Your task to perform on an android device: Open Google Chrome and click the shortcut for Amazon.com Image 0: 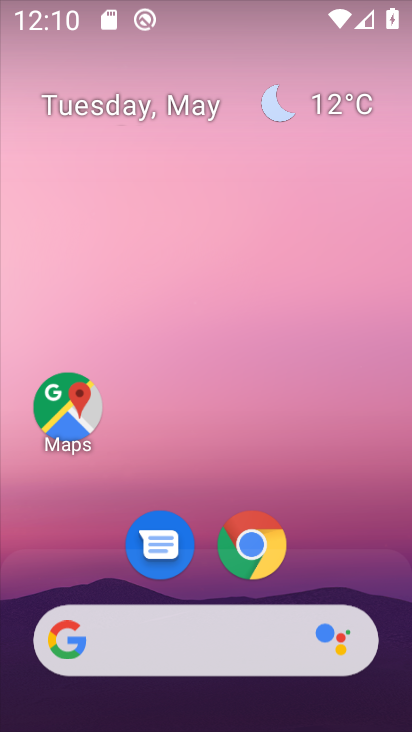
Step 0: click (287, 547)
Your task to perform on an android device: Open Google Chrome and click the shortcut for Amazon.com Image 1: 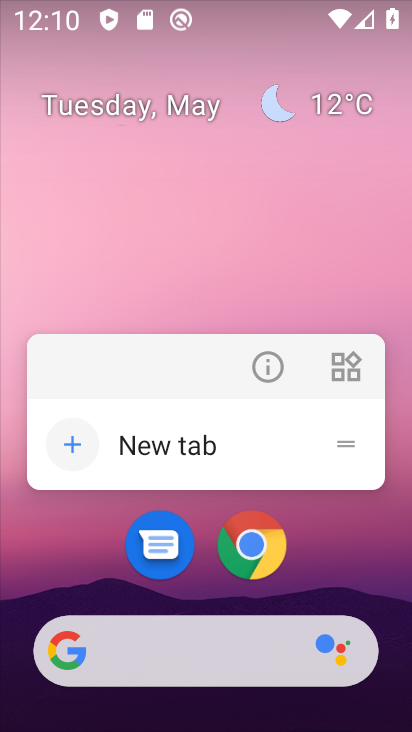
Step 1: click (256, 535)
Your task to perform on an android device: Open Google Chrome and click the shortcut for Amazon.com Image 2: 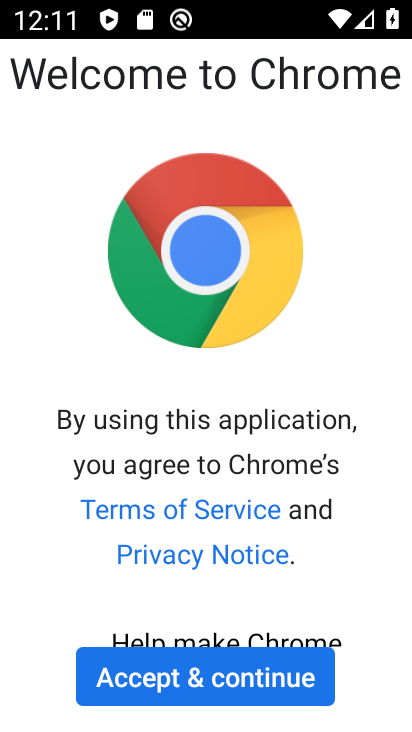
Step 2: click (230, 668)
Your task to perform on an android device: Open Google Chrome and click the shortcut for Amazon.com Image 3: 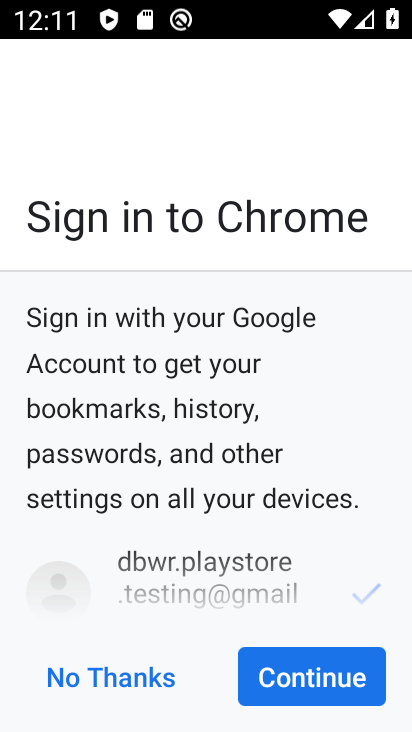
Step 3: click (297, 663)
Your task to perform on an android device: Open Google Chrome and click the shortcut for Amazon.com Image 4: 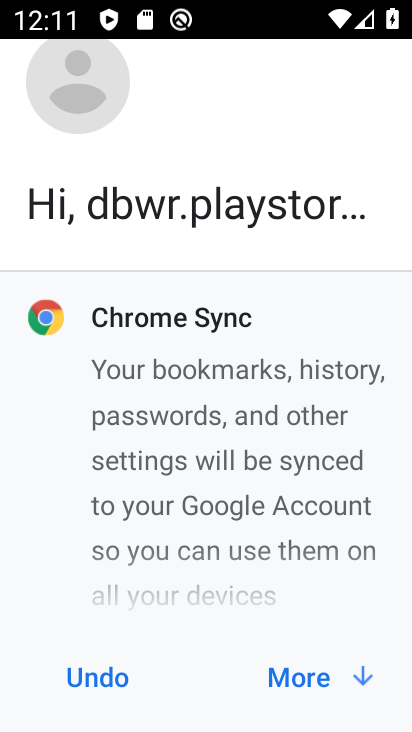
Step 4: click (297, 661)
Your task to perform on an android device: Open Google Chrome and click the shortcut for Amazon.com Image 5: 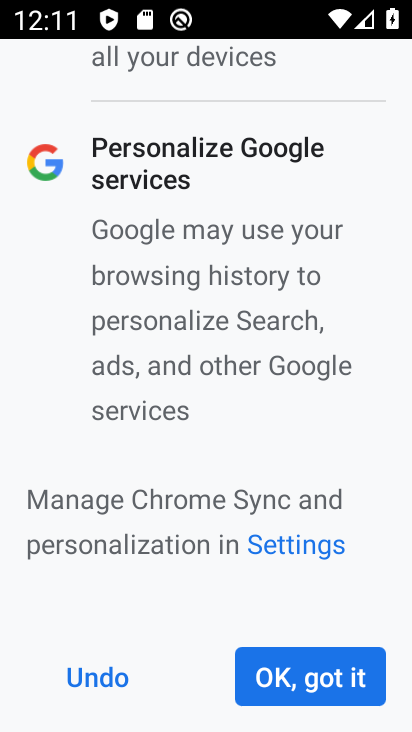
Step 5: click (295, 672)
Your task to perform on an android device: Open Google Chrome and click the shortcut for Amazon.com Image 6: 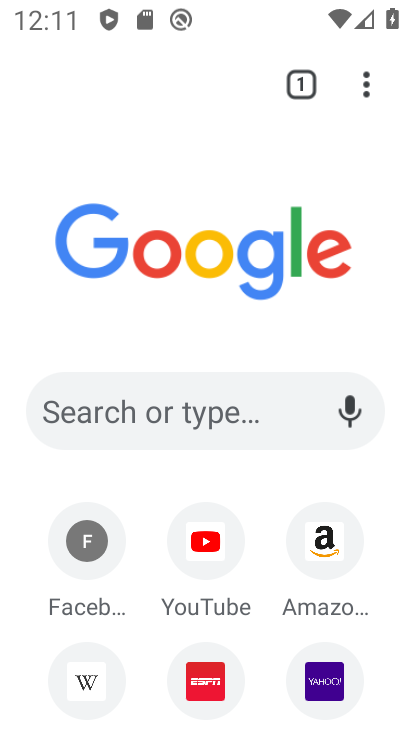
Step 6: click (309, 538)
Your task to perform on an android device: Open Google Chrome and click the shortcut for Amazon.com Image 7: 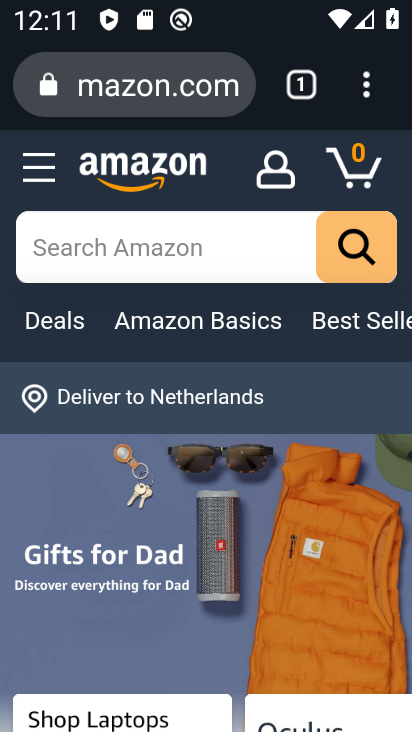
Step 7: task complete